Your task to perform on an android device: change alarm snooze length Image 0: 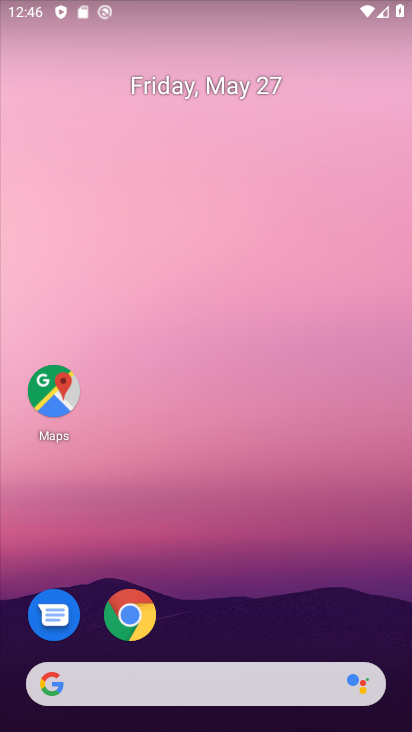
Step 0: click (274, 250)
Your task to perform on an android device: change alarm snooze length Image 1: 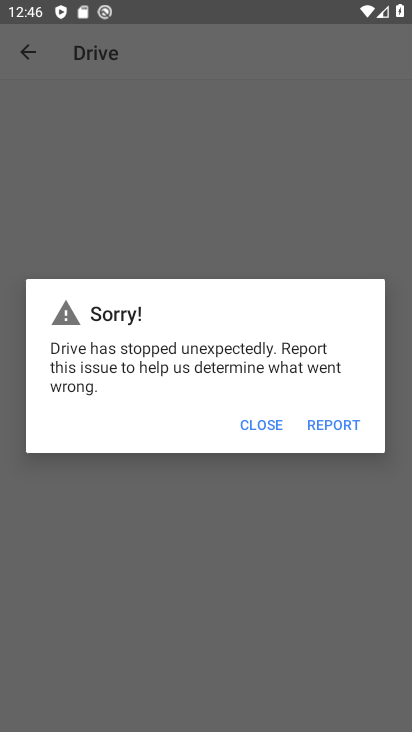
Step 1: drag from (221, 617) to (226, 181)
Your task to perform on an android device: change alarm snooze length Image 2: 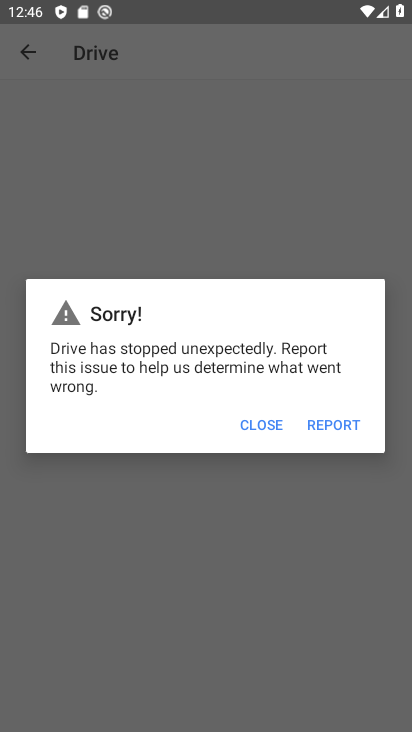
Step 2: press home button
Your task to perform on an android device: change alarm snooze length Image 3: 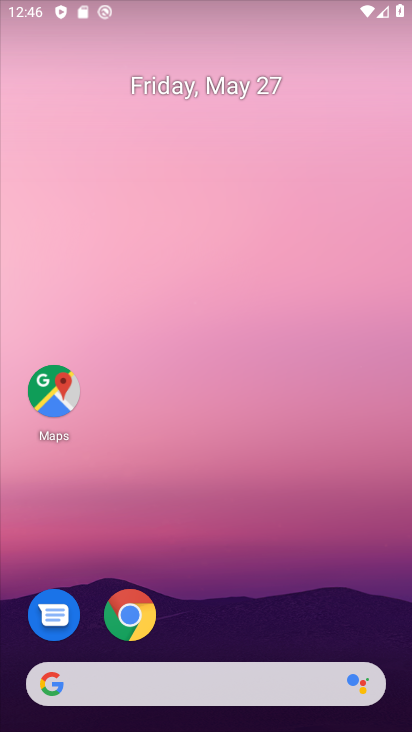
Step 3: drag from (219, 618) to (216, 149)
Your task to perform on an android device: change alarm snooze length Image 4: 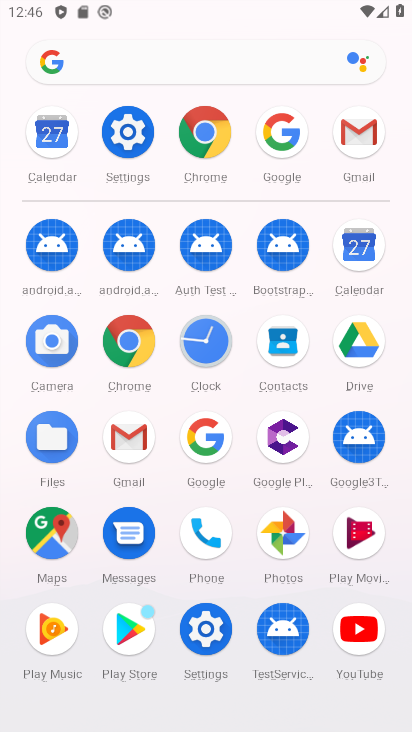
Step 4: click (203, 352)
Your task to perform on an android device: change alarm snooze length Image 5: 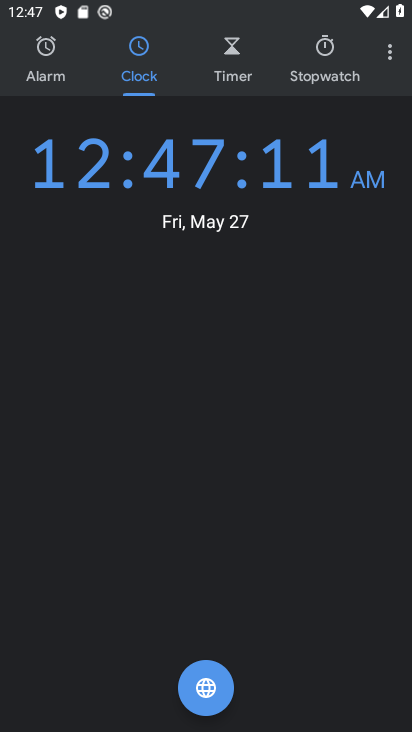
Step 5: click (388, 62)
Your task to perform on an android device: change alarm snooze length Image 6: 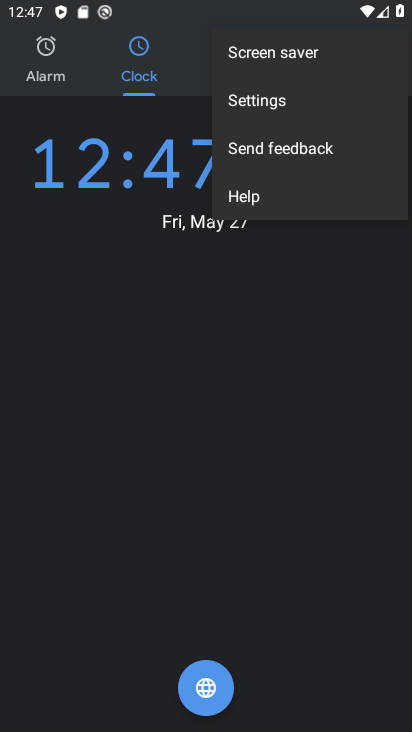
Step 6: click (292, 102)
Your task to perform on an android device: change alarm snooze length Image 7: 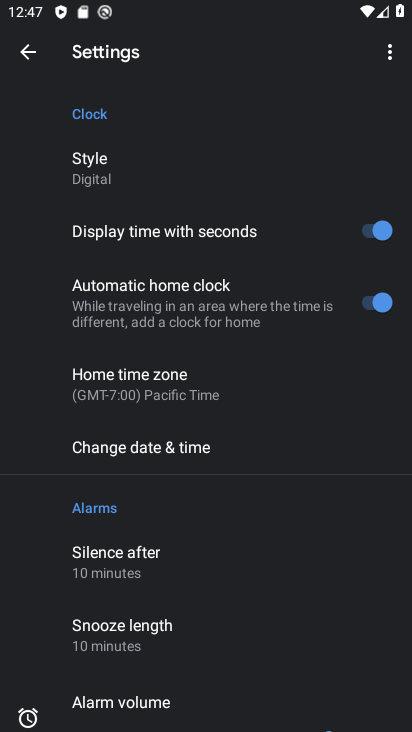
Step 7: click (182, 615)
Your task to perform on an android device: change alarm snooze length Image 8: 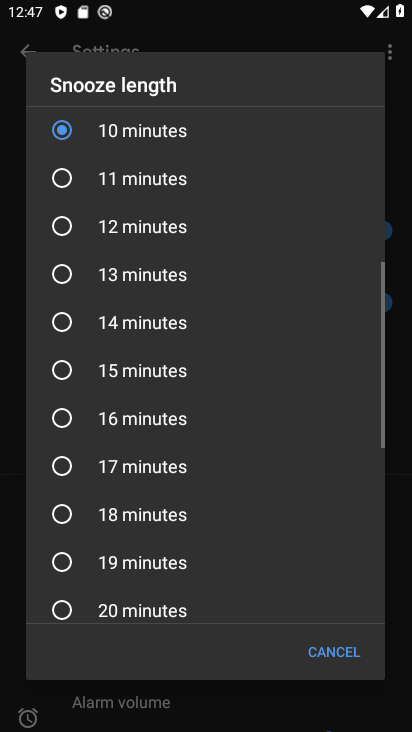
Step 8: click (115, 199)
Your task to perform on an android device: change alarm snooze length Image 9: 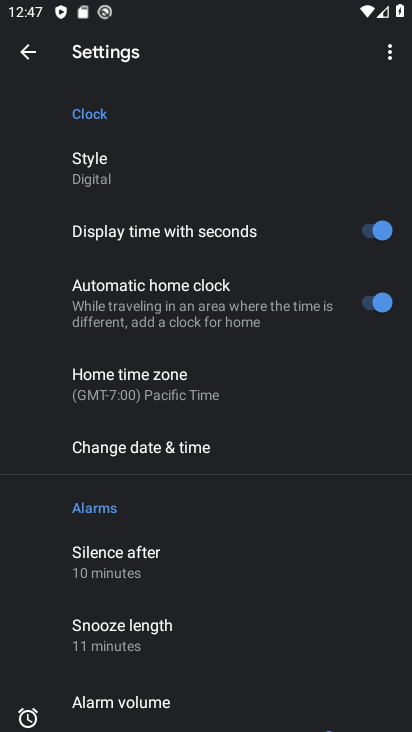
Step 9: task complete